Your task to perform on an android device: turn off priority inbox in the gmail app Image 0: 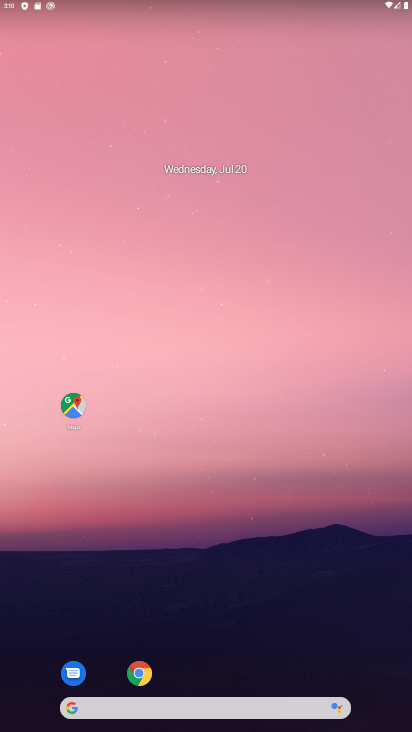
Step 0: drag from (294, 598) to (279, 286)
Your task to perform on an android device: turn off priority inbox in the gmail app Image 1: 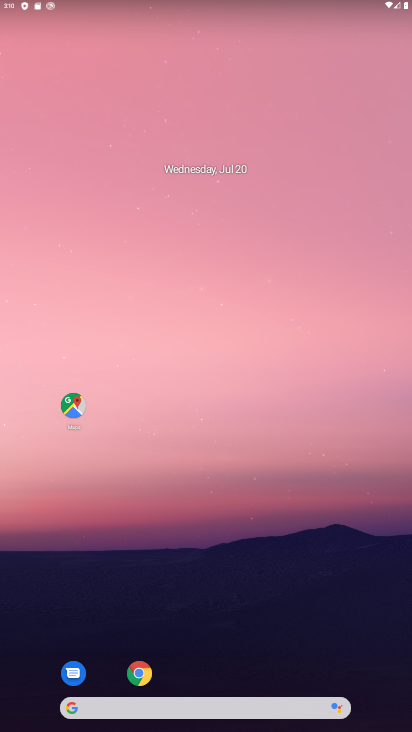
Step 1: drag from (292, 628) to (225, 86)
Your task to perform on an android device: turn off priority inbox in the gmail app Image 2: 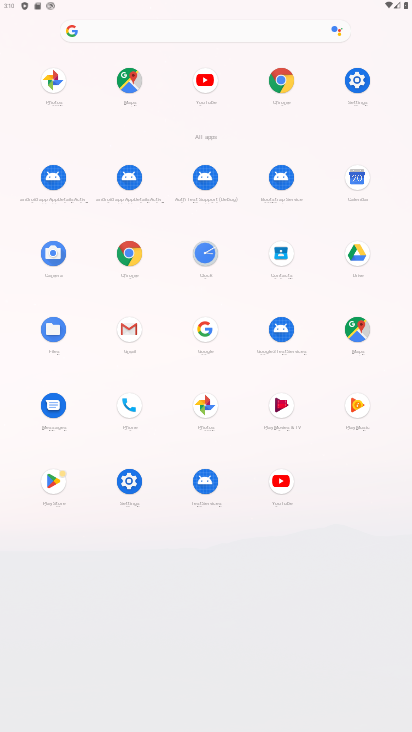
Step 2: click (127, 337)
Your task to perform on an android device: turn off priority inbox in the gmail app Image 3: 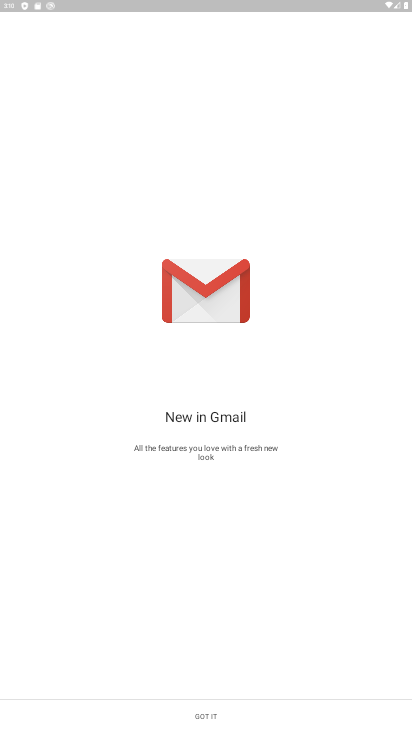
Step 3: click (201, 710)
Your task to perform on an android device: turn off priority inbox in the gmail app Image 4: 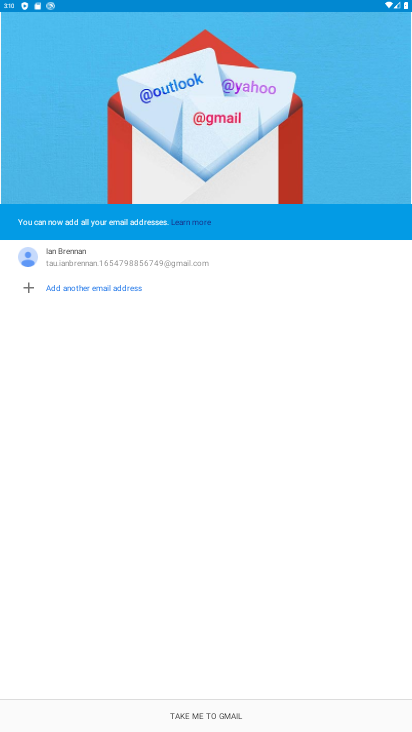
Step 4: click (219, 712)
Your task to perform on an android device: turn off priority inbox in the gmail app Image 5: 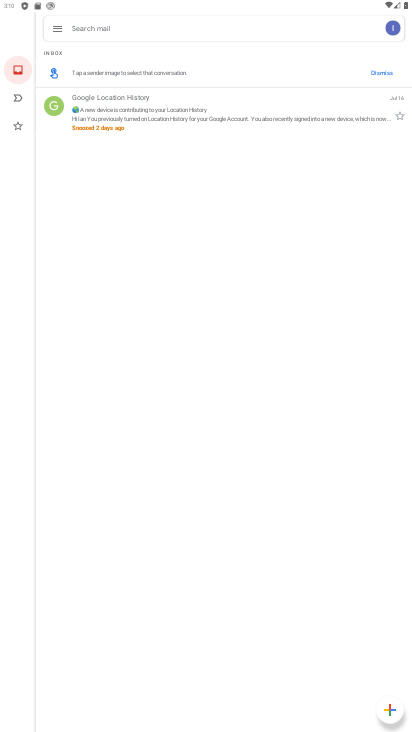
Step 5: task complete